Your task to perform on an android device: Open Google Maps Image 0: 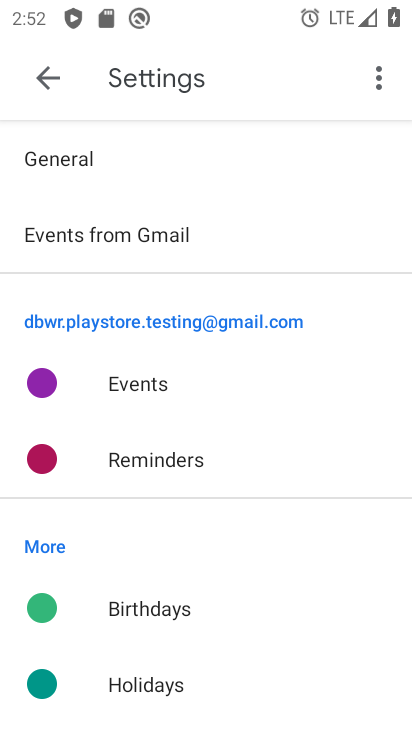
Step 0: press home button
Your task to perform on an android device: Open Google Maps Image 1: 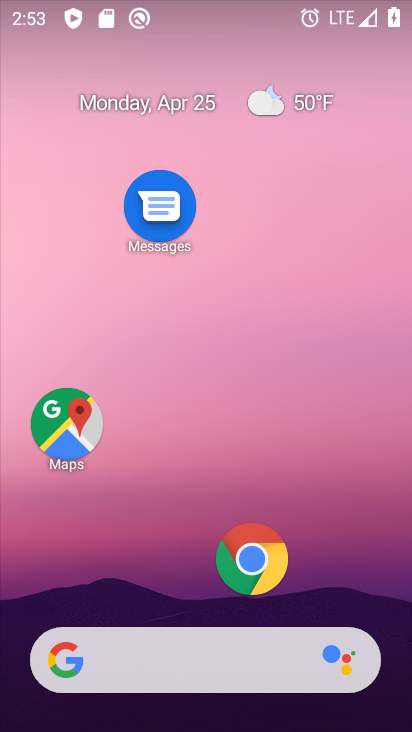
Step 1: click (59, 419)
Your task to perform on an android device: Open Google Maps Image 2: 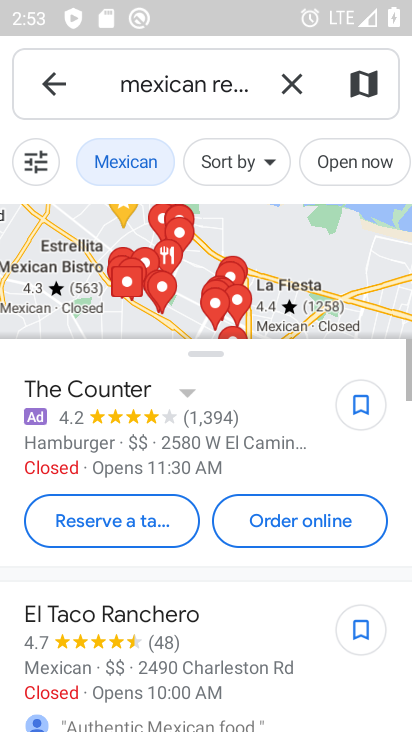
Step 2: click (55, 84)
Your task to perform on an android device: Open Google Maps Image 3: 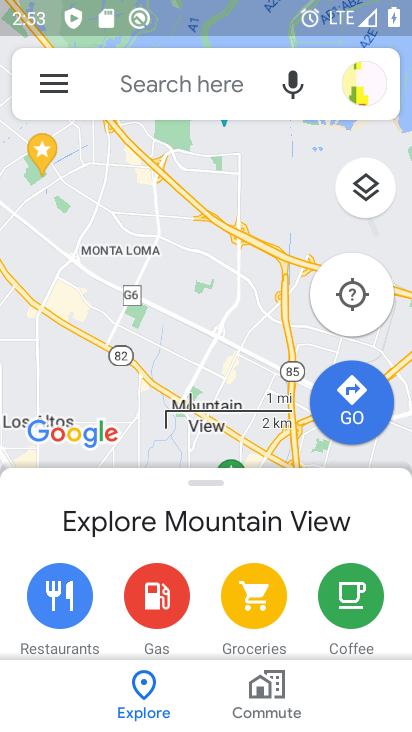
Step 3: click (52, 81)
Your task to perform on an android device: Open Google Maps Image 4: 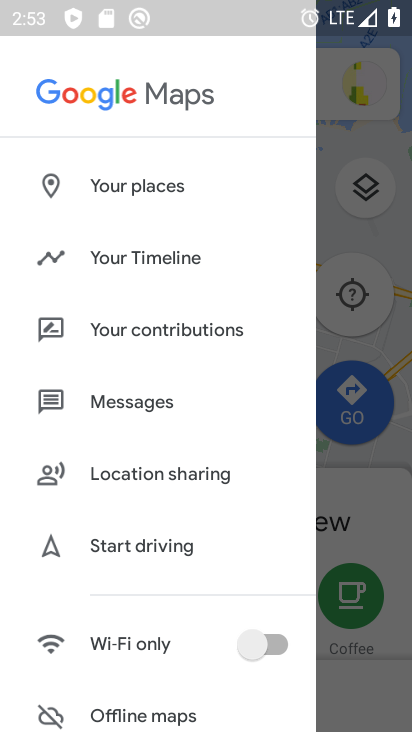
Step 4: drag from (130, 587) to (169, 292)
Your task to perform on an android device: Open Google Maps Image 5: 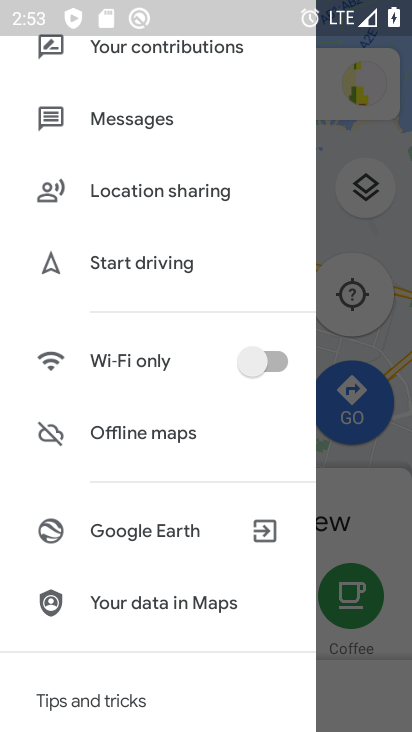
Step 5: click (152, 430)
Your task to perform on an android device: Open Google Maps Image 6: 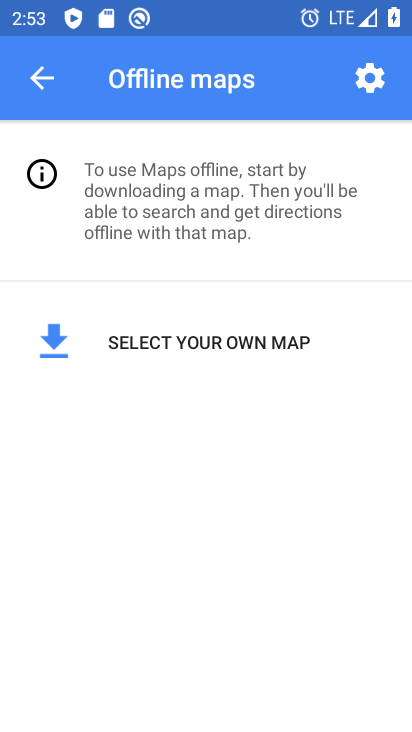
Step 6: task complete